Your task to perform on an android device: refresh tabs in the chrome app Image 0: 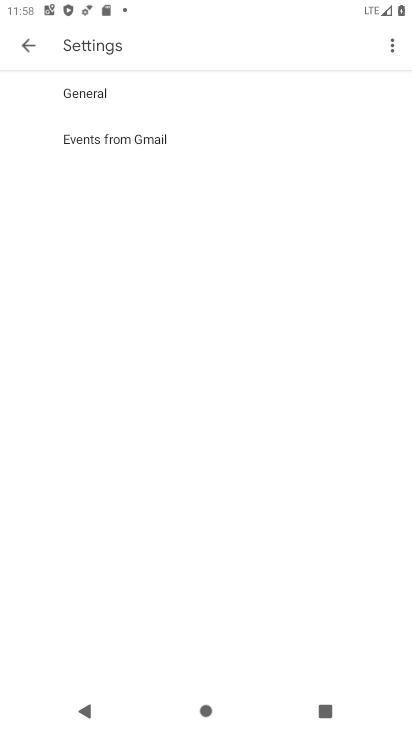
Step 0: press back button
Your task to perform on an android device: refresh tabs in the chrome app Image 1: 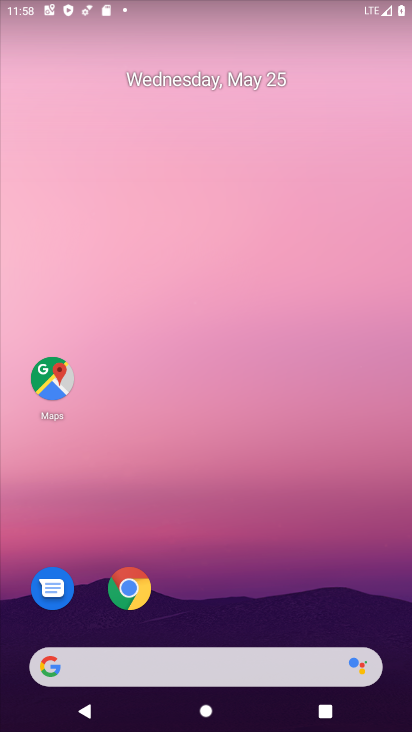
Step 1: drag from (273, 564) to (240, 34)
Your task to perform on an android device: refresh tabs in the chrome app Image 2: 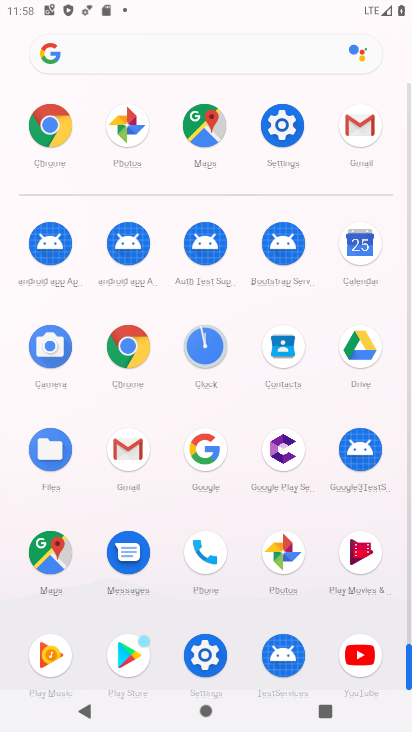
Step 2: click (123, 339)
Your task to perform on an android device: refresh tabs in the chrome app Image 3: 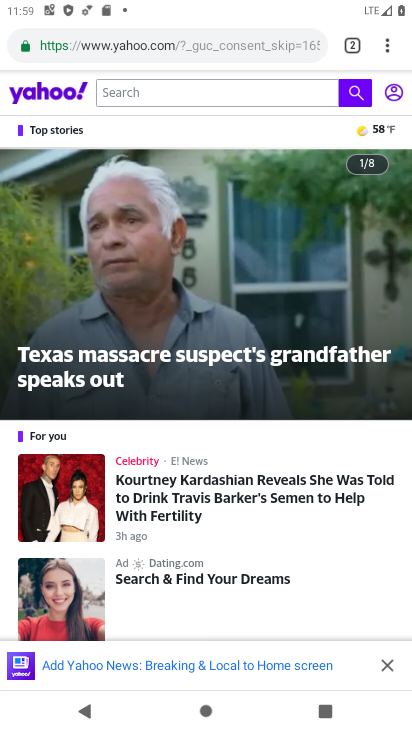
Step 3: click (387, 47)
Your task to perform on an android device: refresh tabs in the chrome app Image 4: 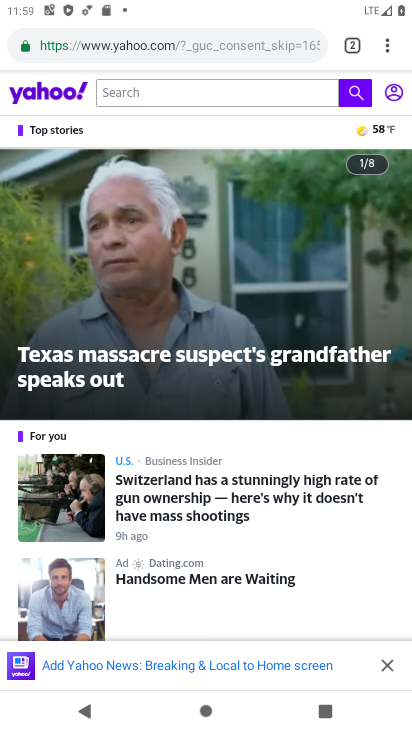
Step 4: click (387, 42)
Your task to perform on an android device: refresh tabs in the chrome app Image 5: 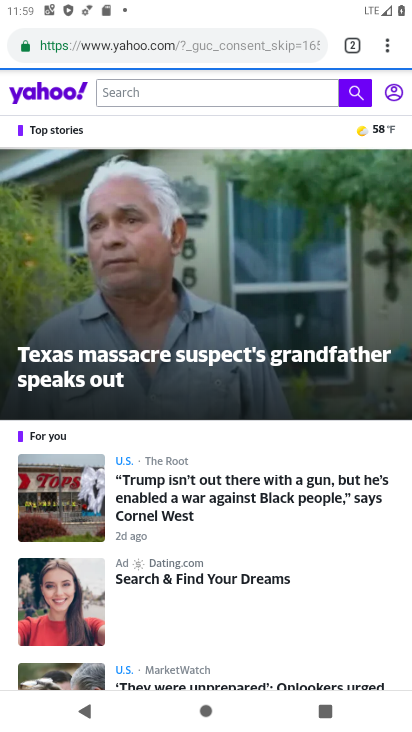
Step 5: task complete